Your task to perform on an android device: change the clock display to show seconds Image 0: 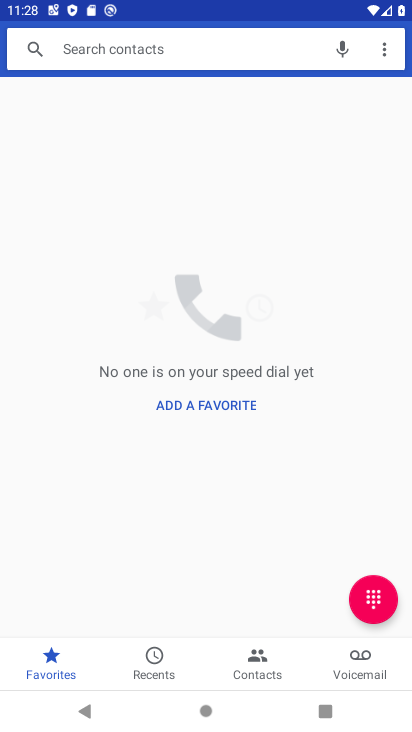
Step 0: press home button
Your task to perform on an android device: change the clock display to show seconds Image 1: 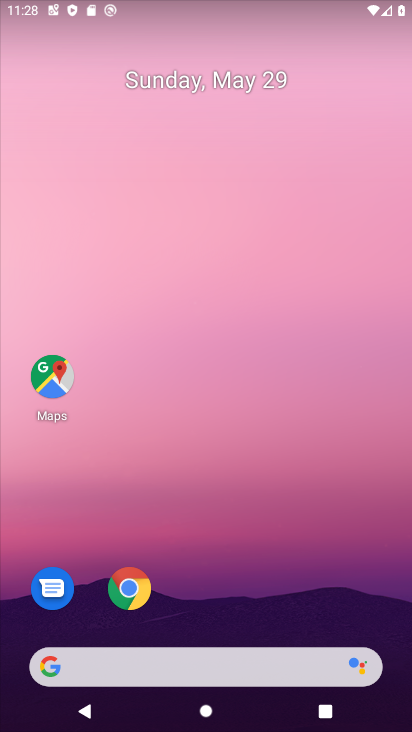
Step 1: drag from (307, 473) to (371, 0)
Your task to perform on an android device: change the clock display to show seconds Image 2: 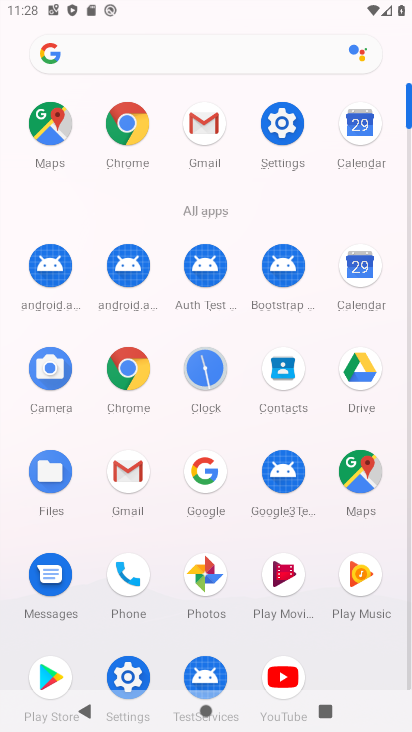
Step 2: click (204, 367)
Your task to perform on an android device: change the clock display to show seconds Image 3: 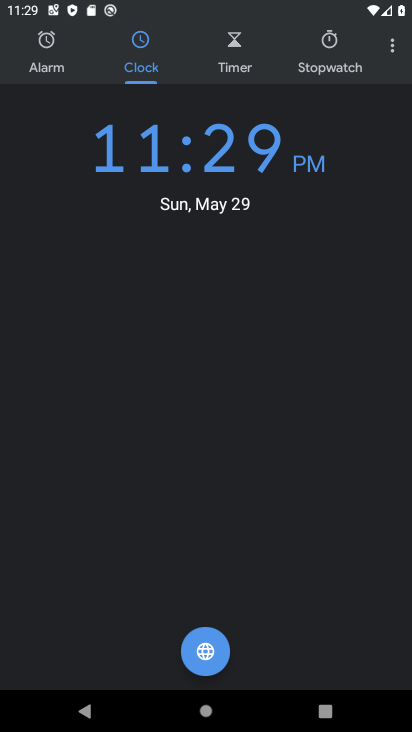
Step 3: click (396, 44)
Your task to perform on an android device: change the clock display to show seconds Image 4: 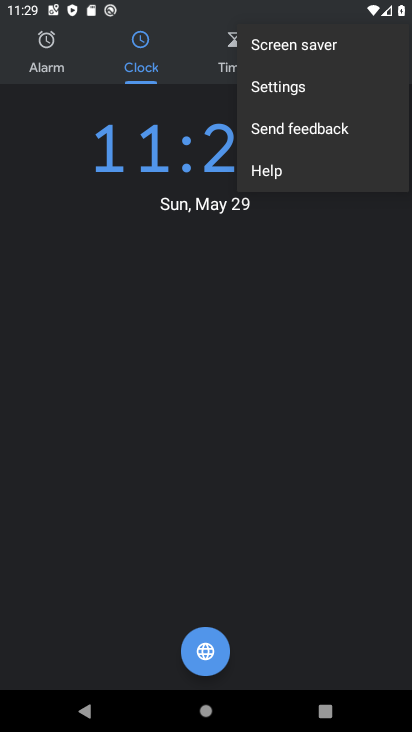
Step 4: click (281, 86)
Your task to perform on an android device: change the clock display to show seconds Image 5: 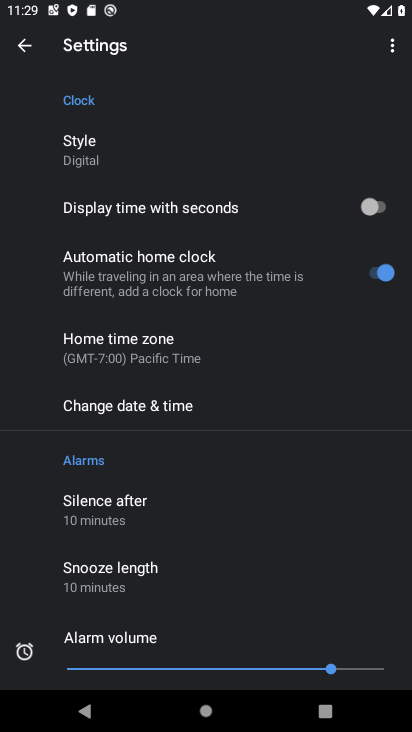
Step 5: click (373, 202)
Your task to perform on an android device: change the clock display to show seconds Image 6: 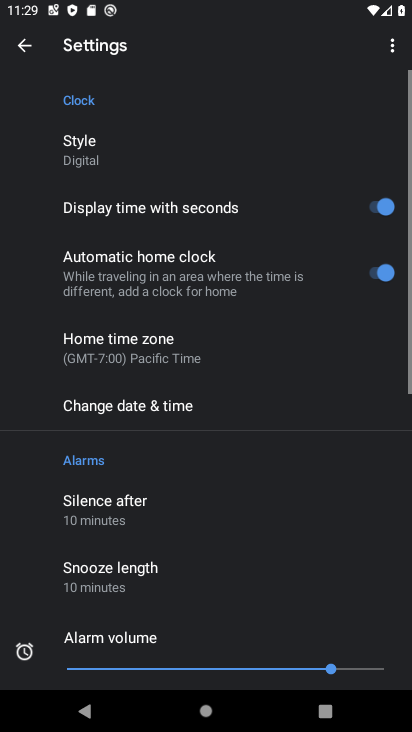
Step 6: task complete